Your task to perform on an android device: make emails show in primary in the gmail app Image 0: 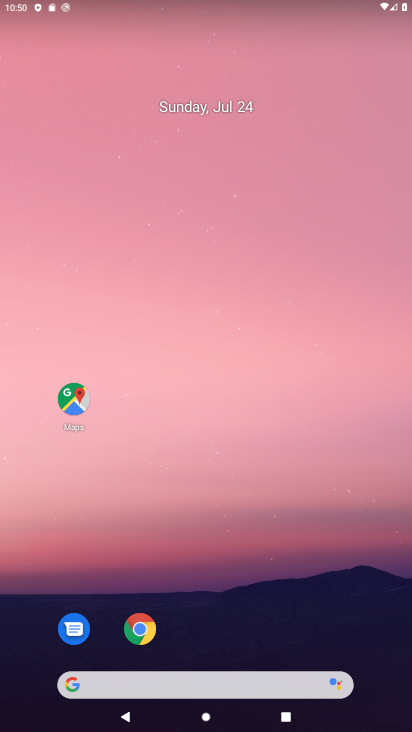
Step 0: press home button
Your task to perform on an android device: make emails show in primary in the gmail app Image 1: 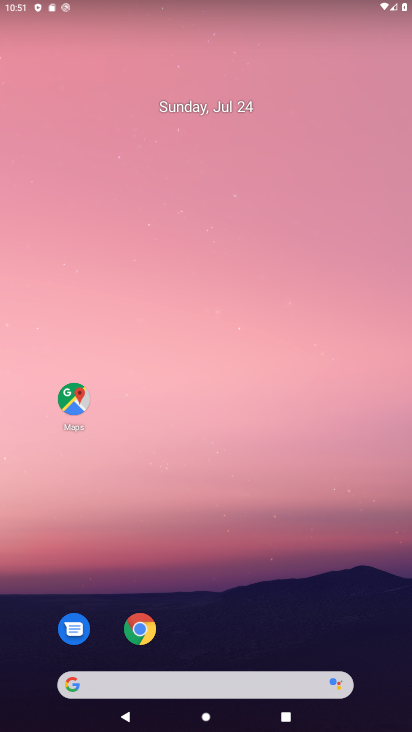
Step 1: drag from (288, 606) to (360, 85)
Your task to perform on an android device: make emails show in primary in the gmail app Image 2: 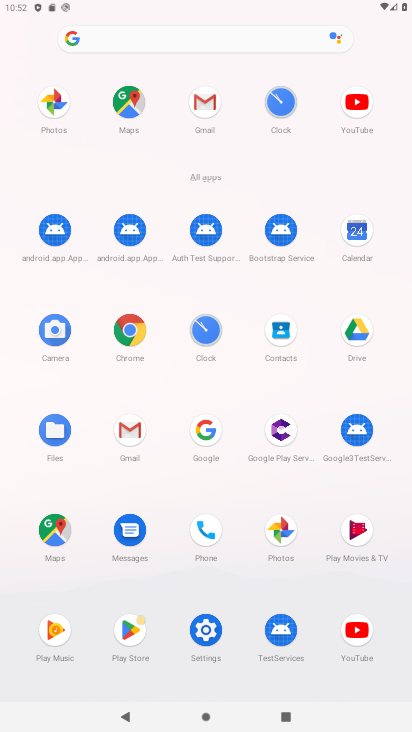
Step 2: click (189, 107)
Your task to perform on an android device: make emails show in primary in the gmail app Image 3: 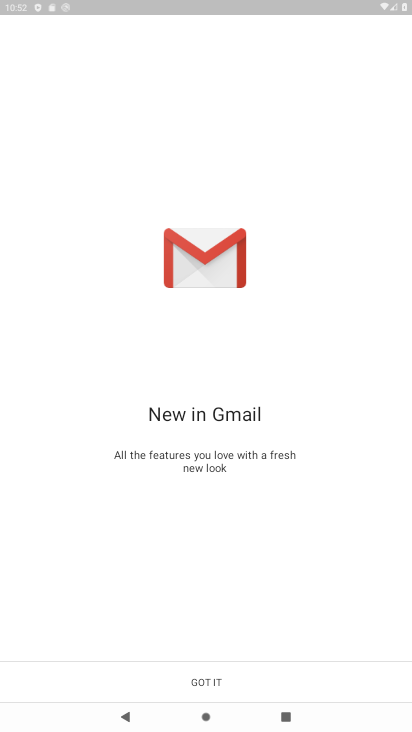
Step 3: click (178, 685)
Your task to perform on an android device: make emails show in primary in the gmail app Image 4: 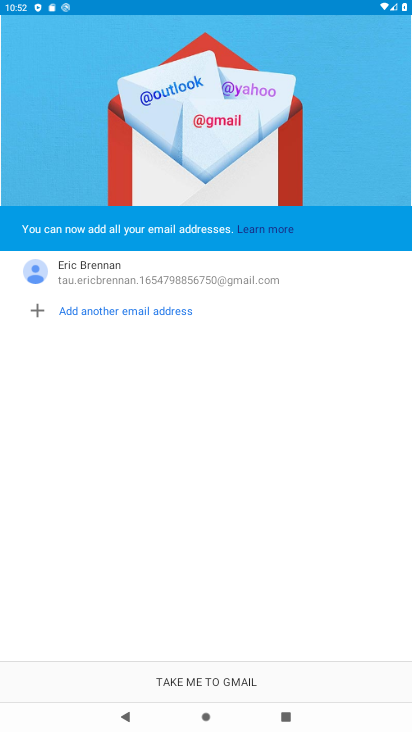
Step 4: click (172, 680)
Your task to perform on an android device: make emails show in primary in the gmail app Image 5: 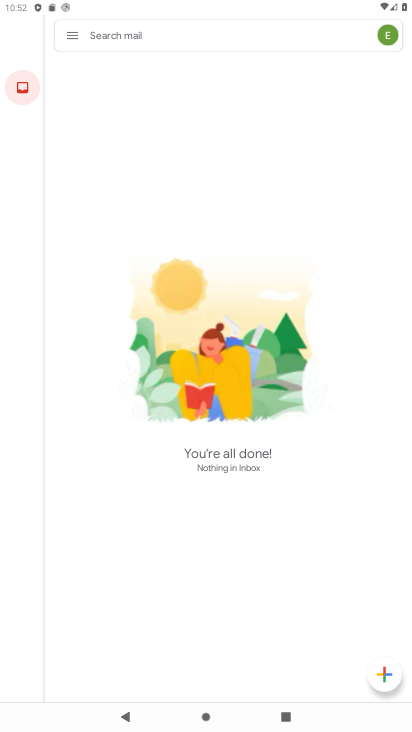
Step 5: click (75, 34)
Your task to perform on an android device: make emails show in primary in the gmail app Image 6: 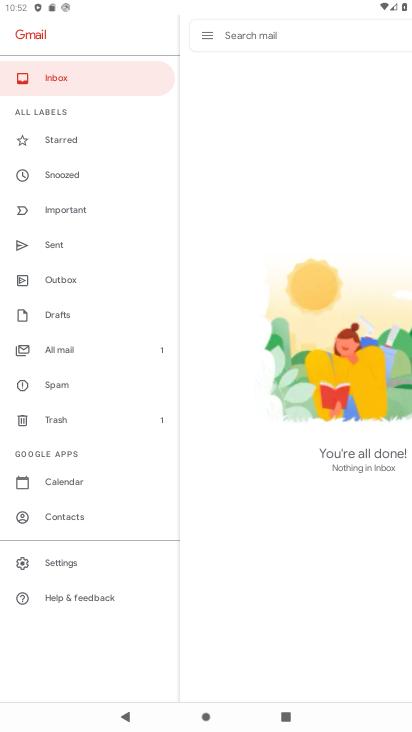
Step 6: task complete